Your task to perform on an android device: turn off data saver in the chrome app Image 0: 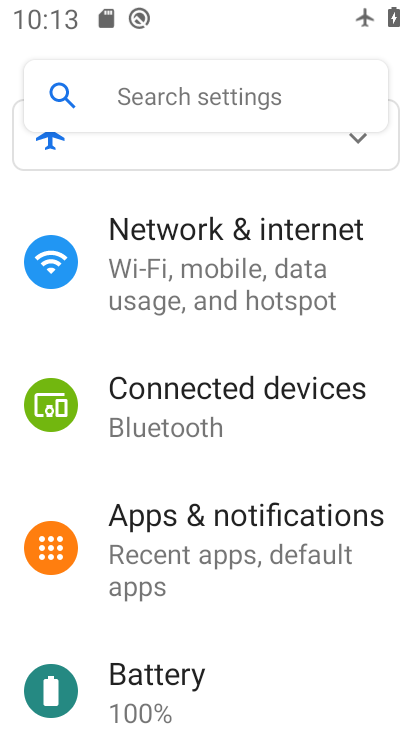
Step 0: press home button
Your task to perform on an android device: turn off data saver in the chrome app Image 1: 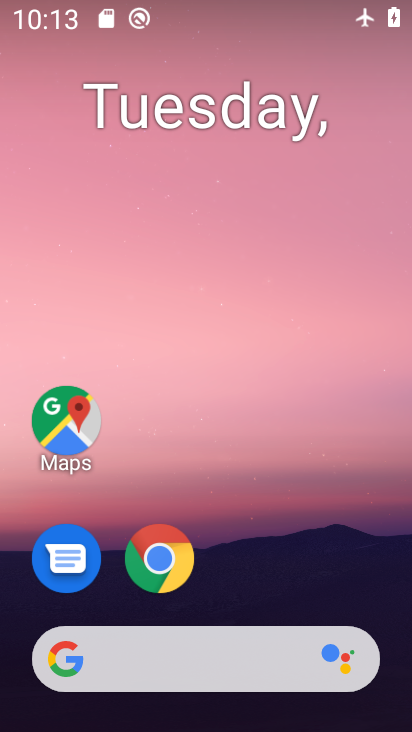
Step 1: drag from (342, 567) to (377, 125)
Your task to perform on an android device: turn off data saver in the chrome app Image 2: 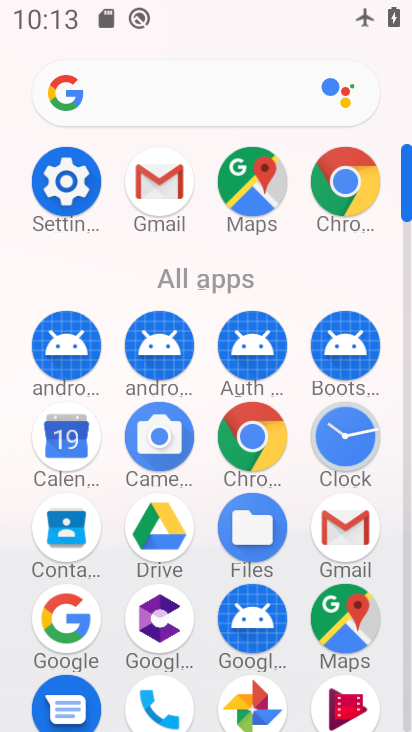
Step 2: click (349, 196)
Your task to perform on an android device: turn off data saver in the chrome app Image 3: 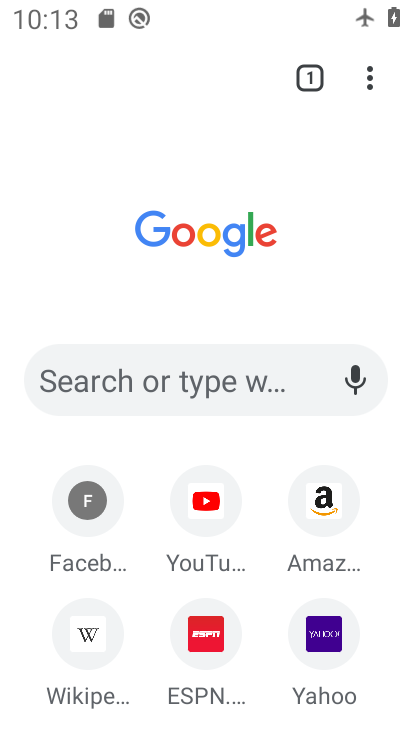
Step 3: click (369, 83)
Your task to perform on an android device: turn off data saver in the chrome app Image 4: 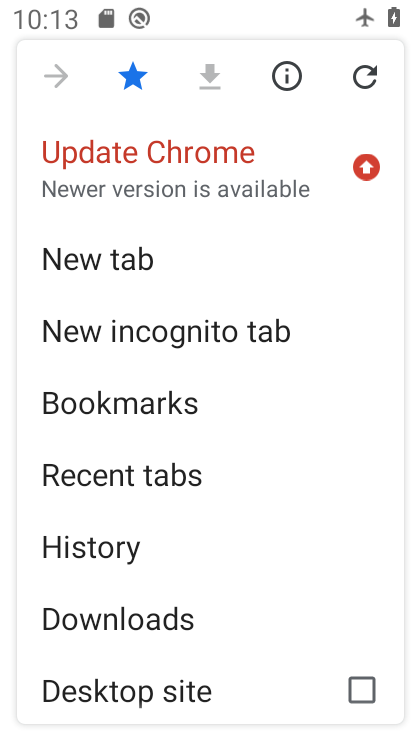
Step 4: drag from (330, 502) to (335, 426)
Your task to perform on an android device: turn off data saver in the chrome app Image 5: 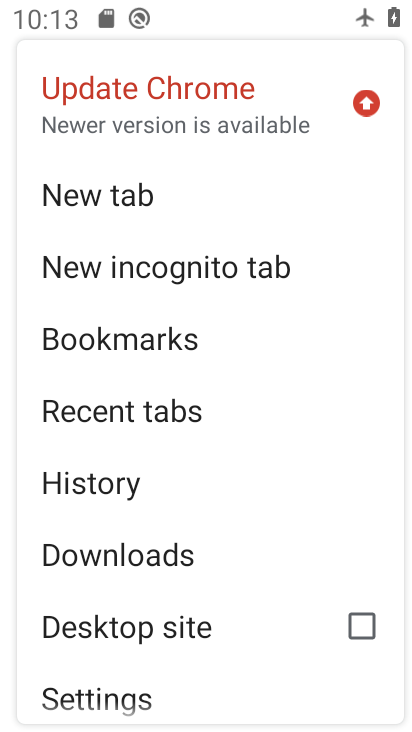
Step 5: drag from (306, 528) to (299, 434)
Your task to perform on an android device: turn off data saver in the chrome app Image 6: 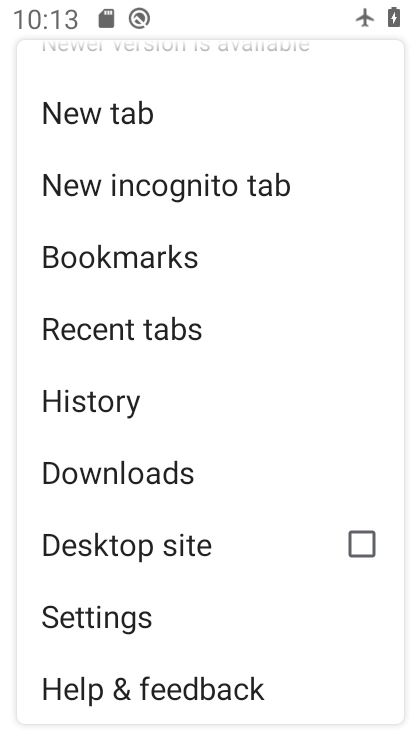
Step 6: drag from (302, 538) to (289, 422)
Your task to perform on an android device: turn off data saver in the chrome app Image 7: 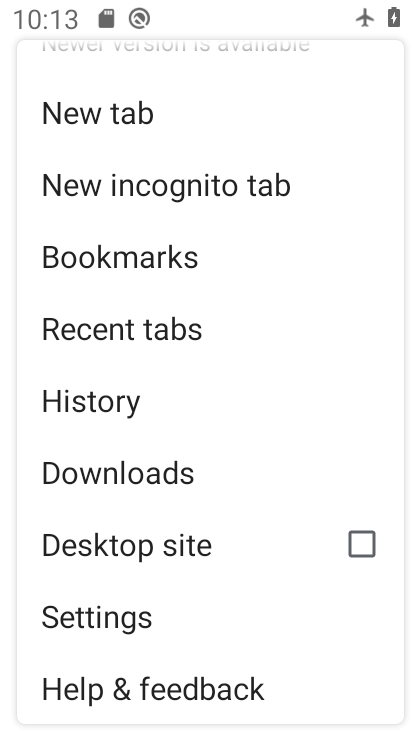
Step 7: click (270, 597)
Your task to perform on an android device: turn off data saver in the chrome app Image 8: 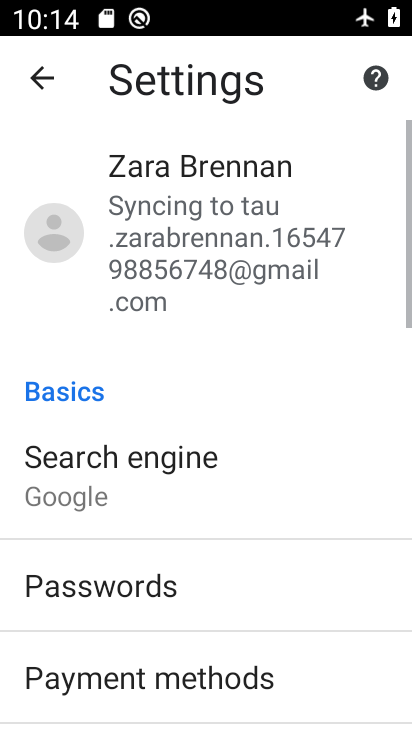
Step 8: drag from (294, 580) to (300, 525)
Your task to perform on an android device: turn off data saver in the chrome app Image 9: 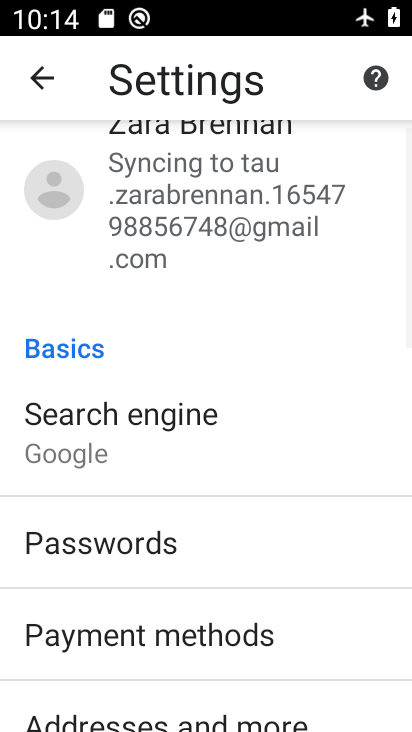
Step 9: drag from (319, 580) to (318, 481)
Your task to perform on an android device: turn off data saver in the chrome app Image 10: 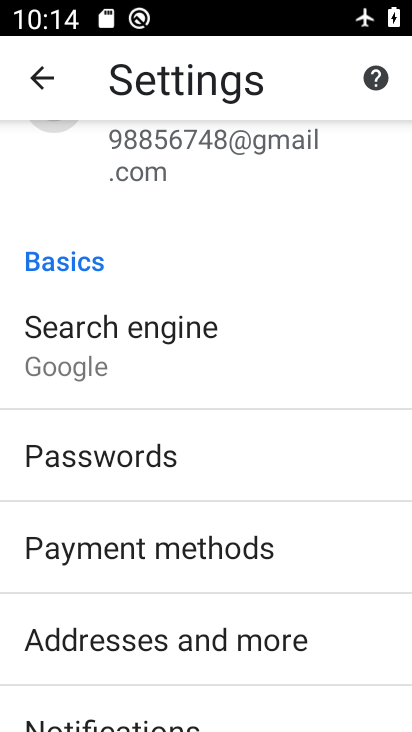
Step 10: drag from (327, 507) to (339, 419)
Your task to perform on an android device: turn off data saver in the chrome app Image 11: 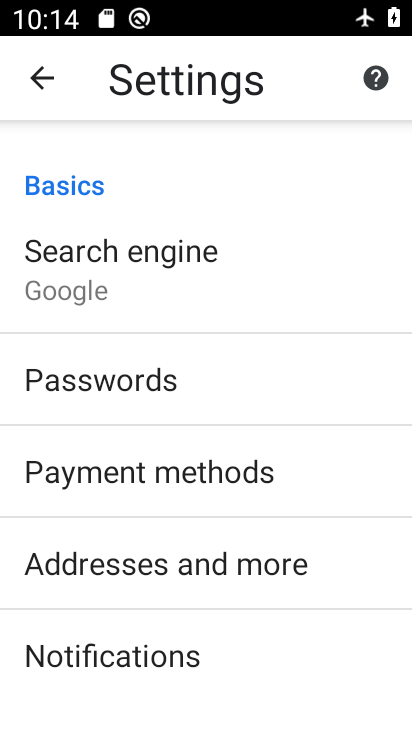
Step 11: drag from (349, 505) to (359, 368)
Your task to perform on an android device: turn off data saver in the chrome app Image 12: 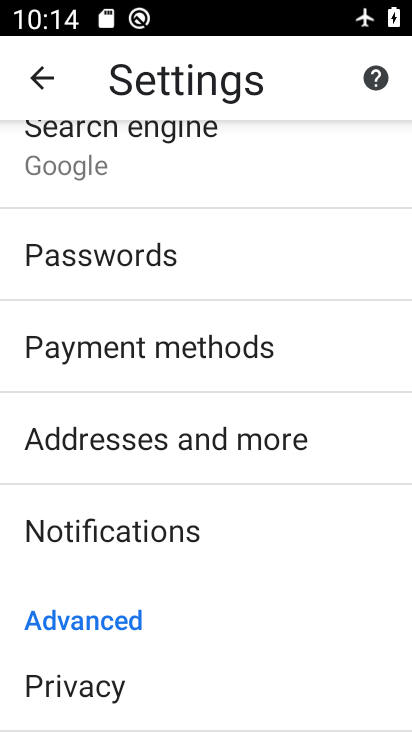
Step 12: drag from (342, 490) to (345, 421)
Your task to perform on an android device: turn off data saver in the chrome app Image 13: 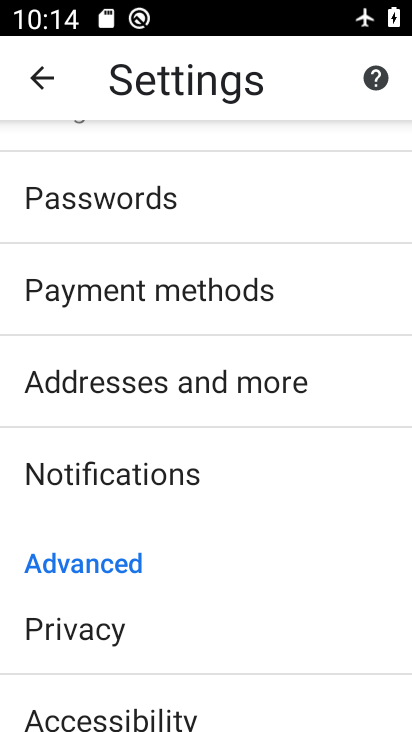
Step 13: drag from (336, 521) to (338, 442)
Your task to perform on an android device: turn off data saver in the chrome app Image 14: 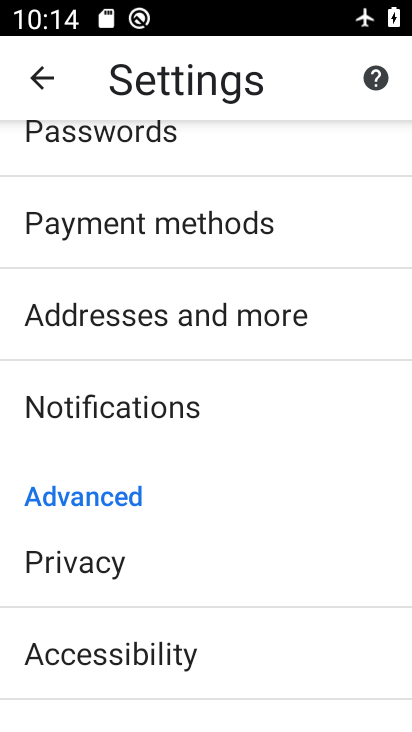
Step 14: drag from (328, 542) to (329, 471)
Your task to perform on an android device: turn off data saver in the chrome app Image 15: 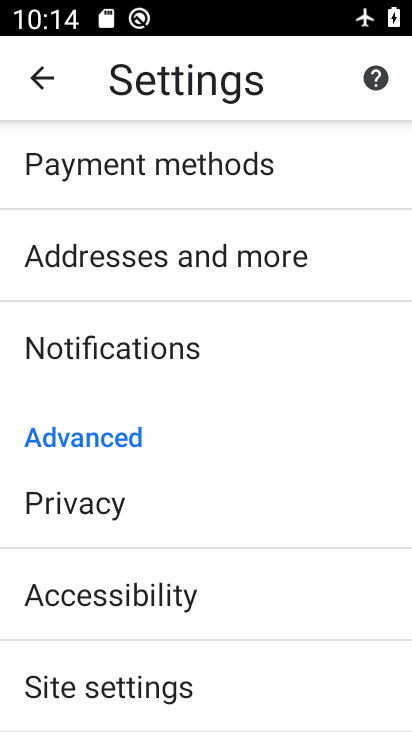
Step 15: drag from (300, 570) to (304, 438)
Your task to perform on an android device: turn off data saver in the chrome app Image 16: 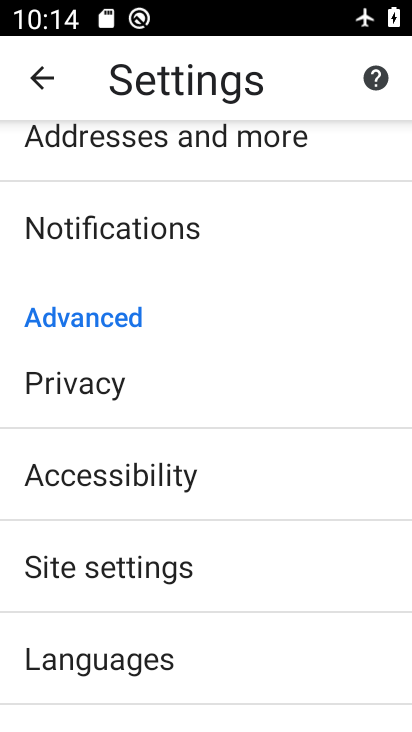
Step 16: drag from (292, 601) to (303, 394)
Your task to perform on an android device: turn off data saver in the chrome app Image 17: 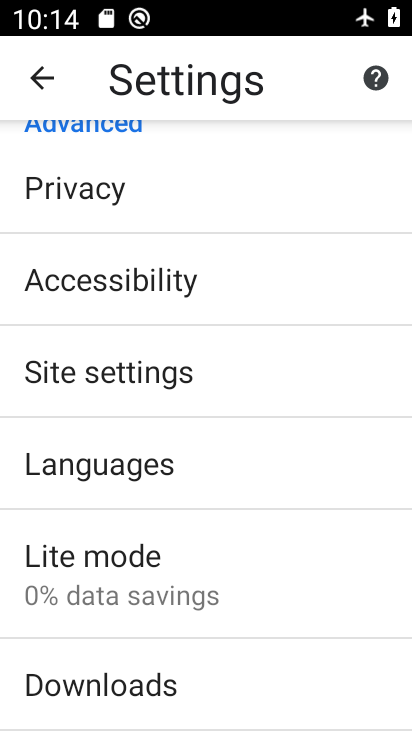
Step 17: click (307, 583)
Your task to perform on an android device: turn off data saver in the chrome app Image 18: 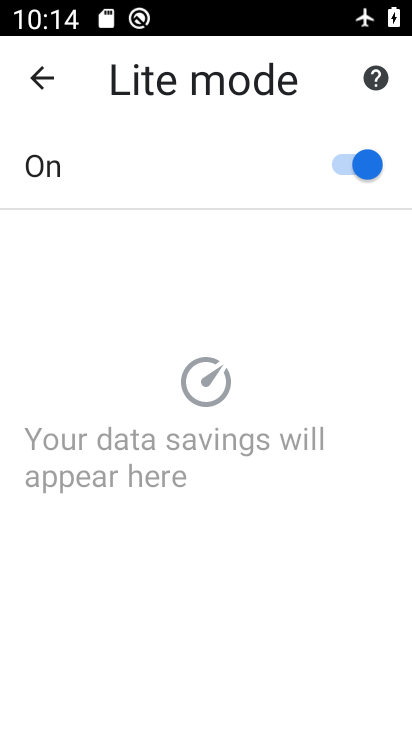
Step 18: click (376, 161)
Your task to perform on an android device: turn off data saver in the chrome app Image 19: 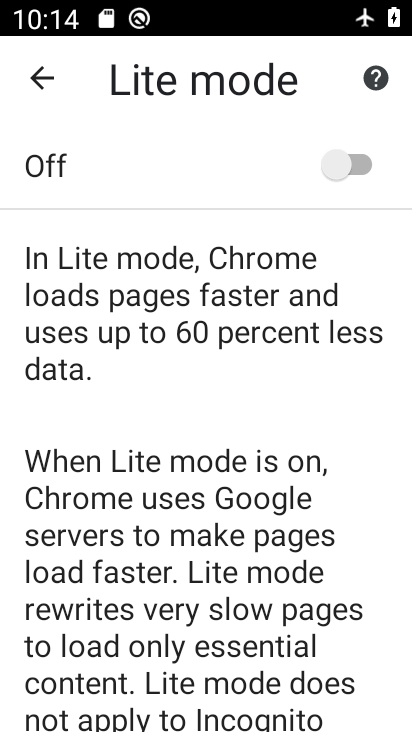
Step 19: task complete